Your task to perform on an android device: check out phone information Image 0: 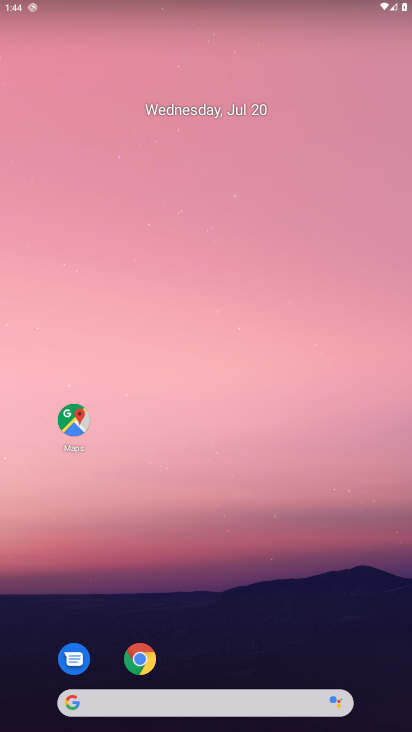
Step 0: drag from (27, 704) to (252, 62)
Your task to perform on an android device: check out phone information Image 1: 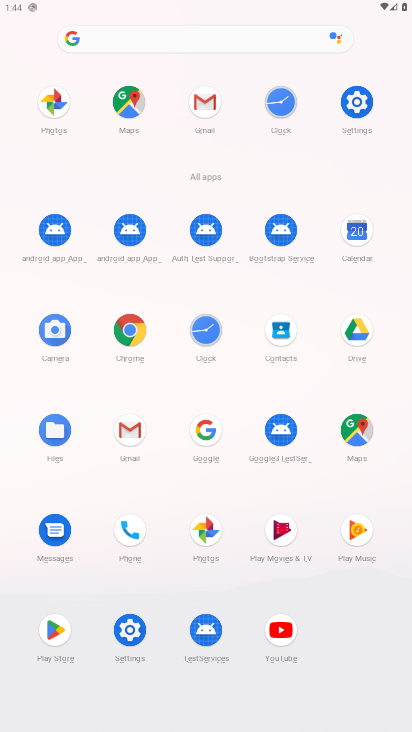
Step 1: drag from (29, 673) to (193, 171)
Your task to perform on an android device: check out phone information Image 2: 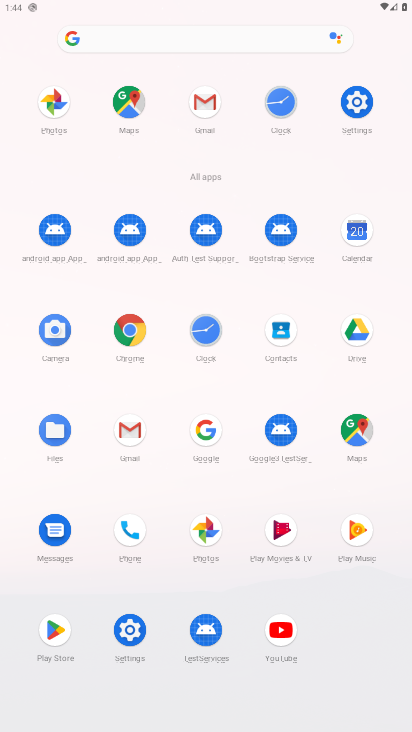
Step 2: click (135, 534)
Your task to perform on an android device: check out phone information Image 3: 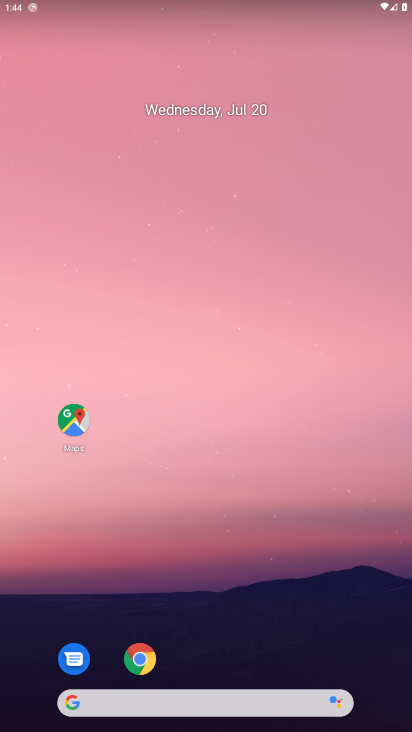
Step 3: drag from (21, 719) to (188, 276)
Your task to perform on an android device: check out phone information Image 4: 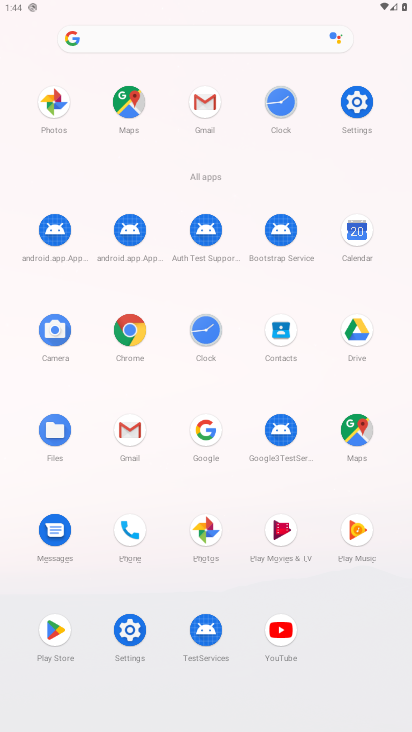
Step 4: click (125, 521)
Your task to perform on an android device: check out phone information Image 5: 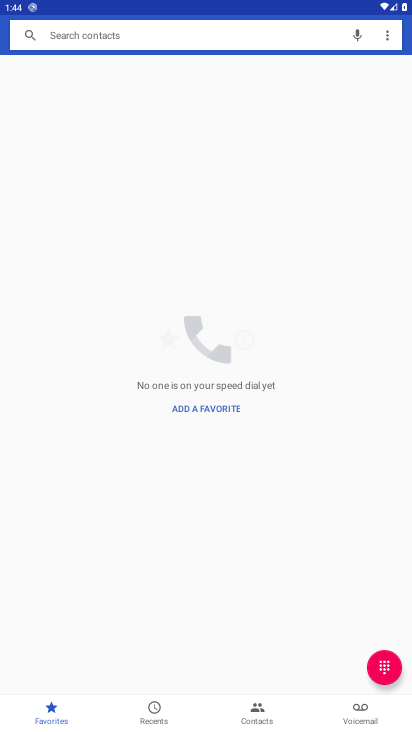
Step 5: click (156, 710)
Your task to perform on an android device: check out phone information Image 6: 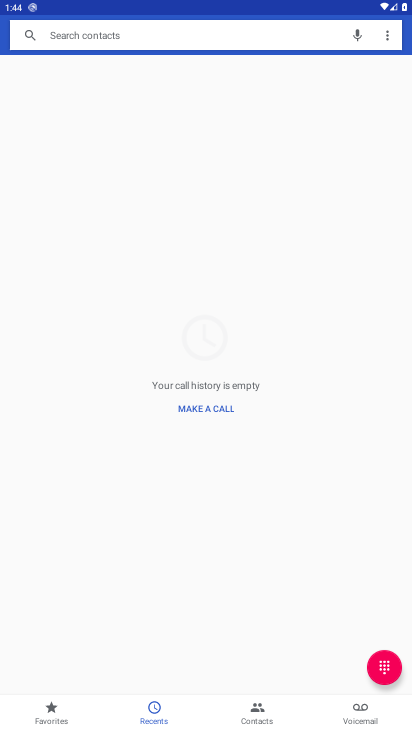
Step 6: task complete